Your task to perform on an android device: allow cookies in the chrome app Image 0: 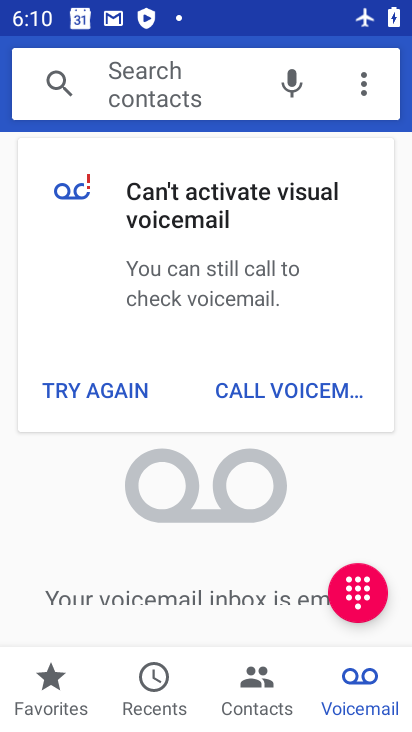
Step 0: press home button
Your task to perform on an android device: allow cookies in the chrome app Image 1: 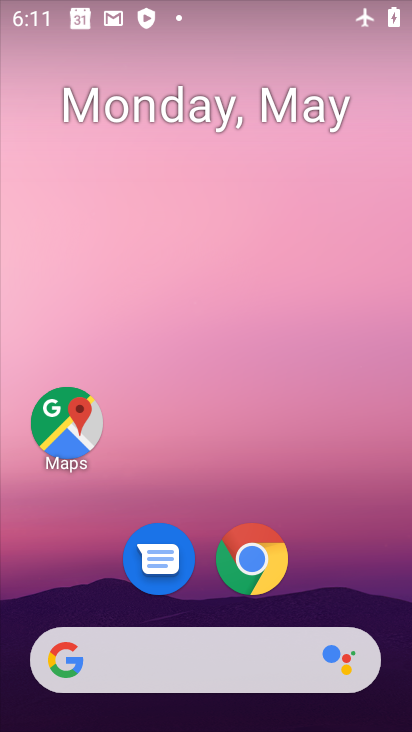
Step 1: click (256, 557)
Your task to perform on an android device: allow cookies in the chrome app Image 2: 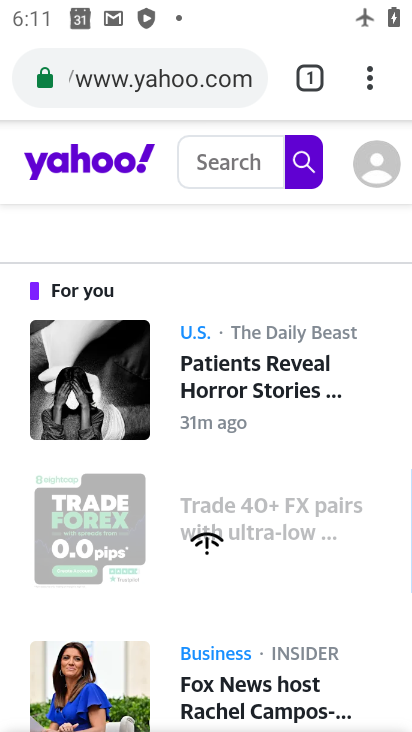
Step 2: click (370, 73)
Your task to perform on an android device: allow cookies in the chrome app Image 3: 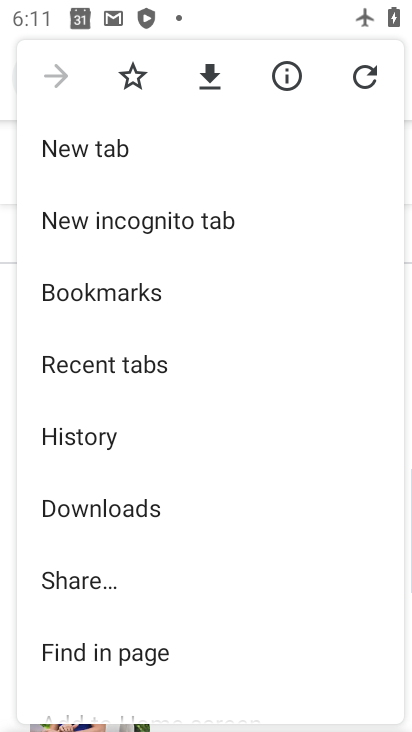
Step 3: drag from (268, 548) to (250, 337)
Your task to perform on an android device: allow cookies in the chrome app Image 4: 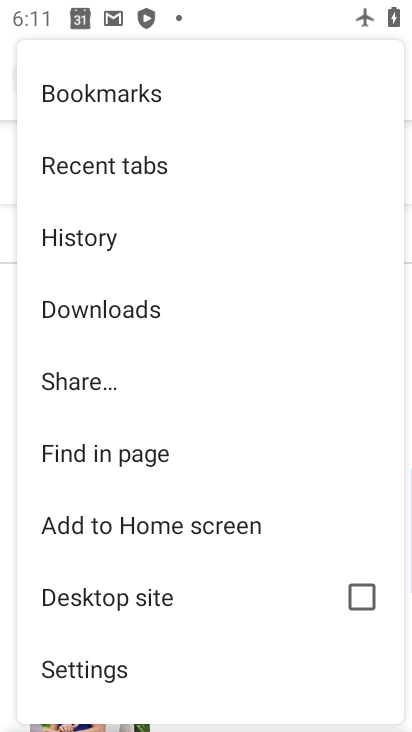
Step 4: click (104, 668)
Your task to perform on an android device: allow cookies in the chrome app Image 5: 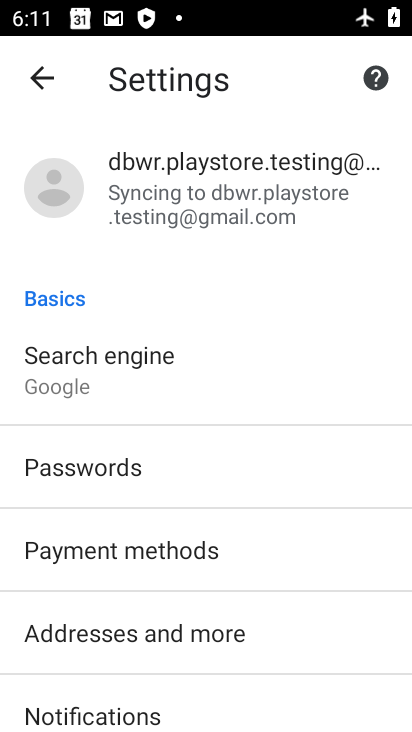
Step 5: drag from (256, 599) to (258, 196)
Your task to perform on an android device: allow cookies in the chrome app Image 6: 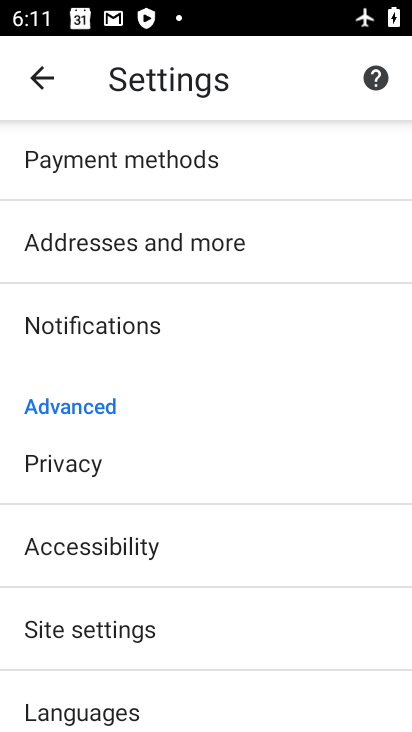
Step 6: click (87, 622)
Your task to perform on an android device: allow cookies in the chrome app Image 7: 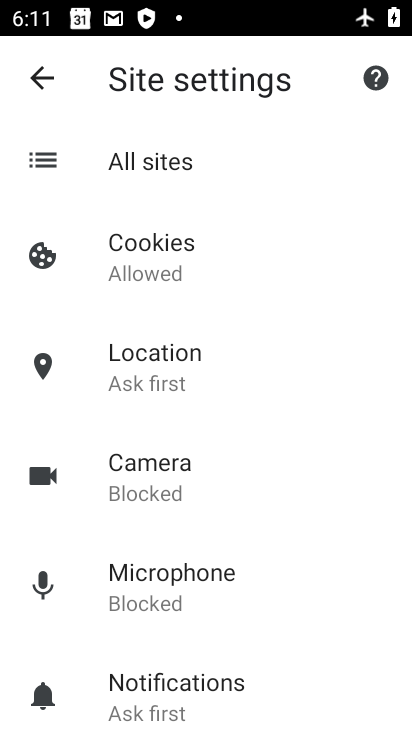
Step 7: click (166, 233)
Your task to perform on an android device: allow cookies in the chrome app Image 8: 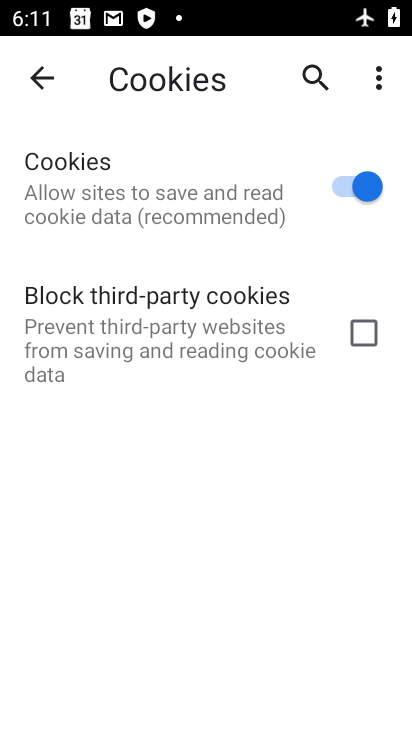
Step 8: task complete